Your task to perform on an android device: toggle location history Image 0: 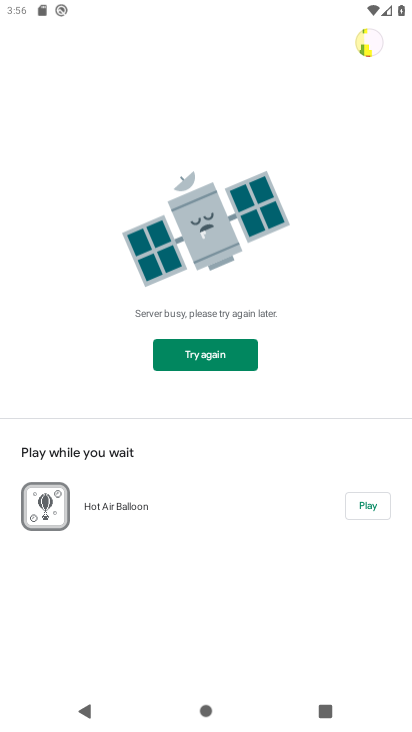
Step 0: press home button
Your task to perform on an android device: toggle location history Image 1: 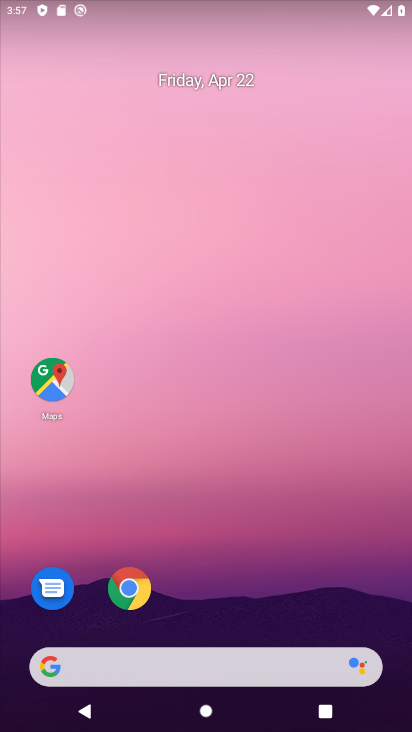
Step 1: drag from (225, 643) to (7, 1)
Your task to perform on an android device: toggle location history Image 2: 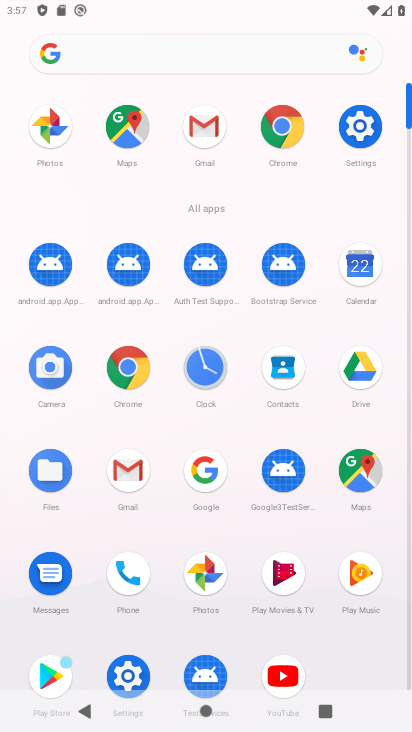
Step 2: click (126, 666)
Your task to perform on an android device: toggle location history Image 3: 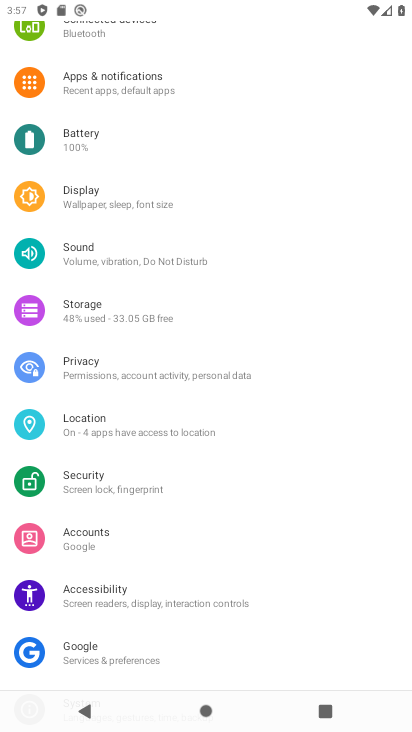
Step 3: click (84, 415)
Your task to perform on an android device: toggle location history Image 4: 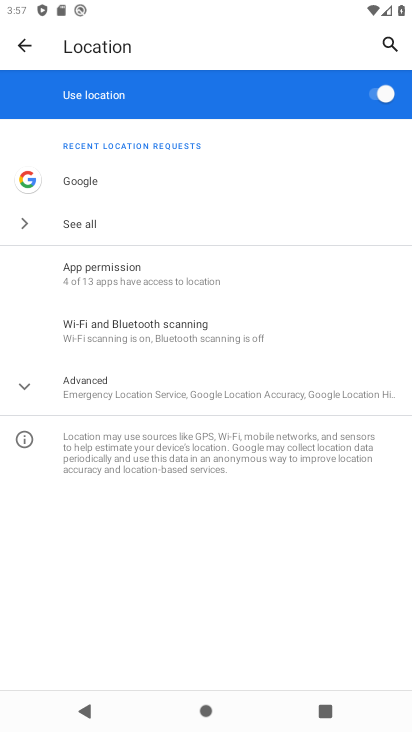
Step 4: click (375, 89)
Your task to perform on an android device: toggle location history Image 5: 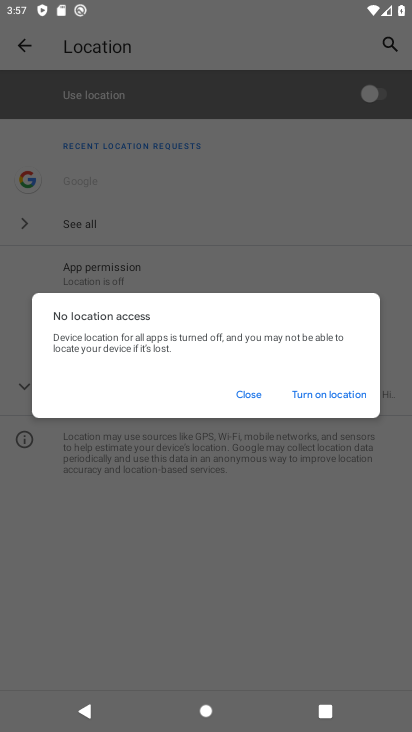
Step 5: task complete